Your task to perform on an android device: What is the news today? Image 0: 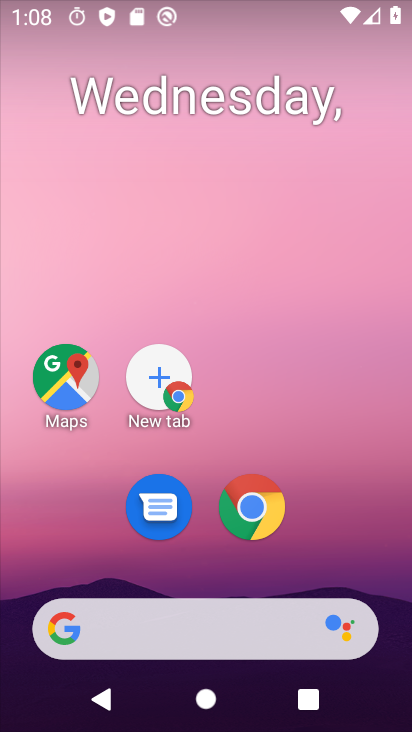
Step 0: drag from (346, 463) to (401, 121)
Your task to perform on an android device: What is the news today? Image 1: 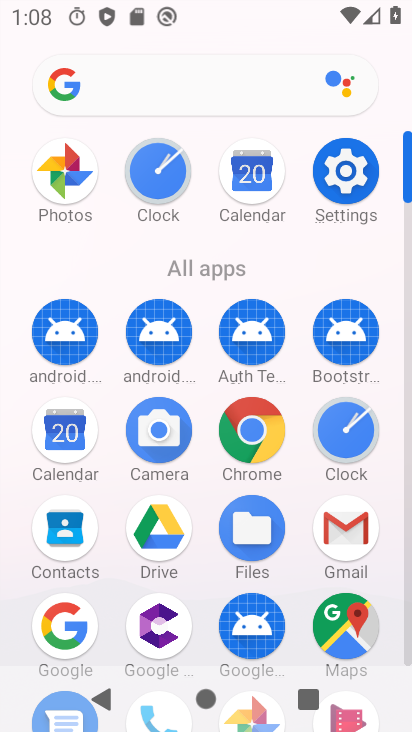
Step 1: click (219, 413)
Your task to perform on an android device: What is the news today? Image 2: 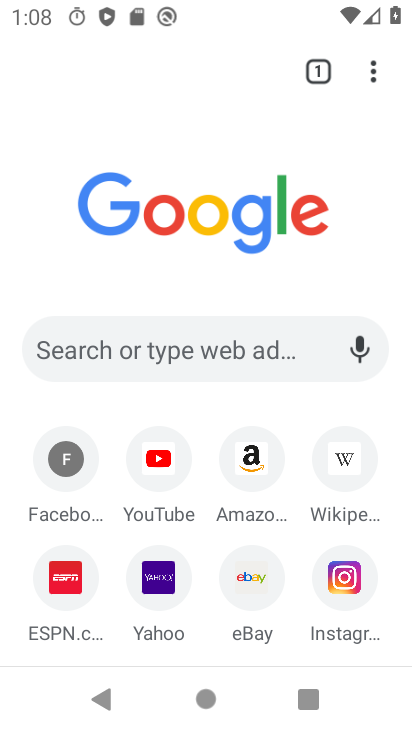
Step 2: task complete